Your task to perform on an android device: What is the news today? Image 0: 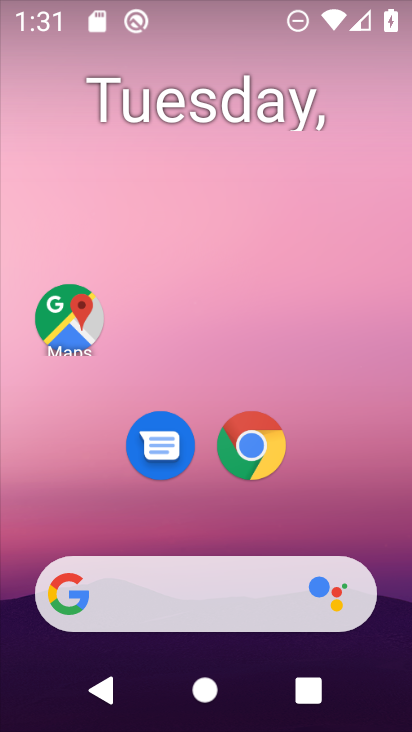
Step 0: drag from (261, 533) to (256, 183)
Your task to perform on an android device: What is the news today? Image 1: 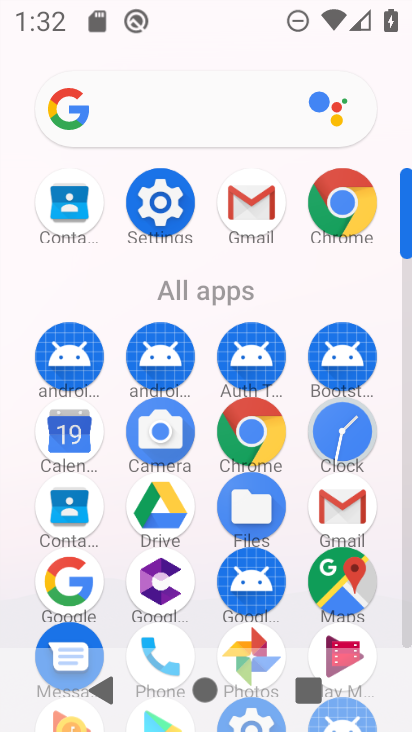
Step 1: drag from (223, 555) to (221, 323)
Your task to perform on an android device: What is the news today? Image 2: 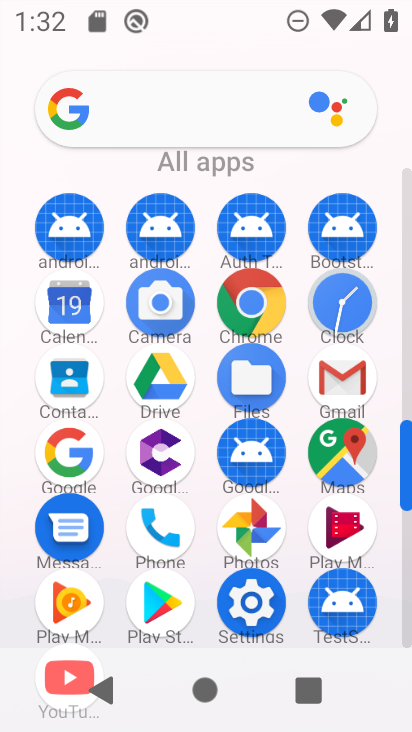
Step 2: click (82, 454)
Your task to perform on an android device: What is the news today? Image 3: 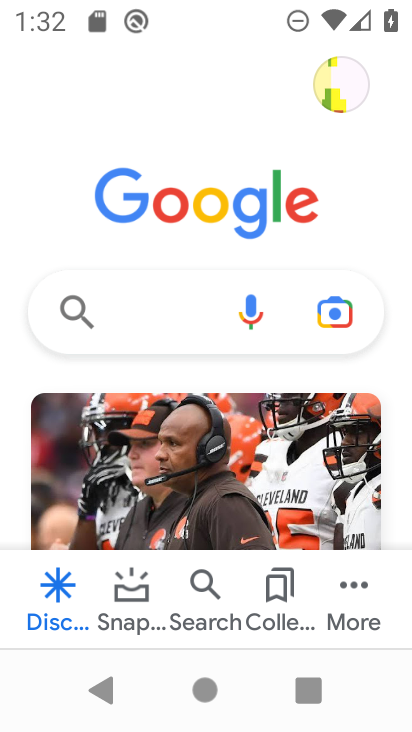
Step 3: task complete